Your task to perform on an android device: Search for sushi restaurants on Maps Image 0: 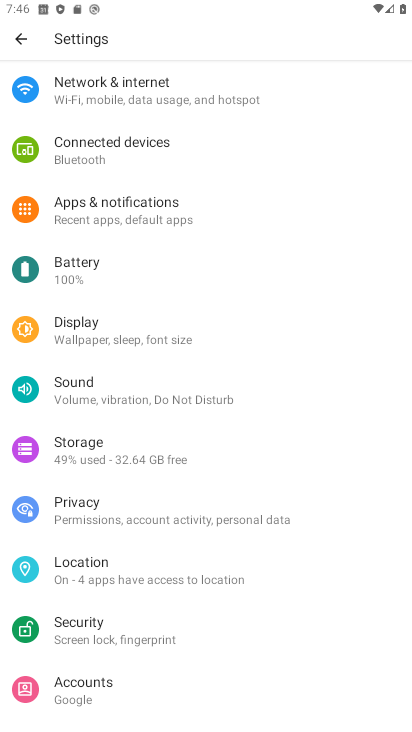
Step 0: press home button
Your task to perform on an android device: Search for sushi restaurants on Maps Image 1: 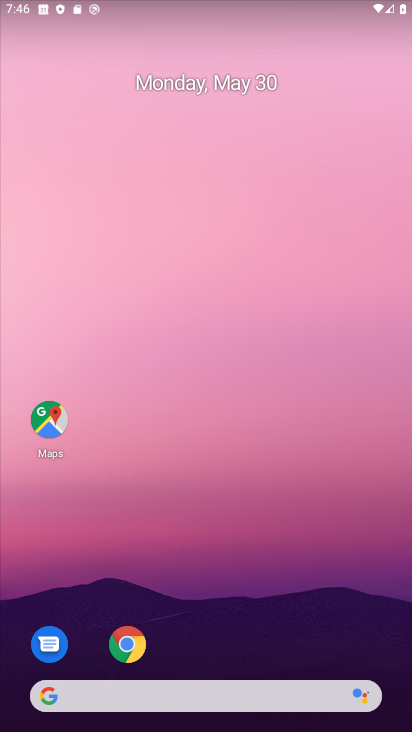
Step 1: click (48, 420)
Your task to perform on an android device: Search for sushi restaurants on Maps Image 2: 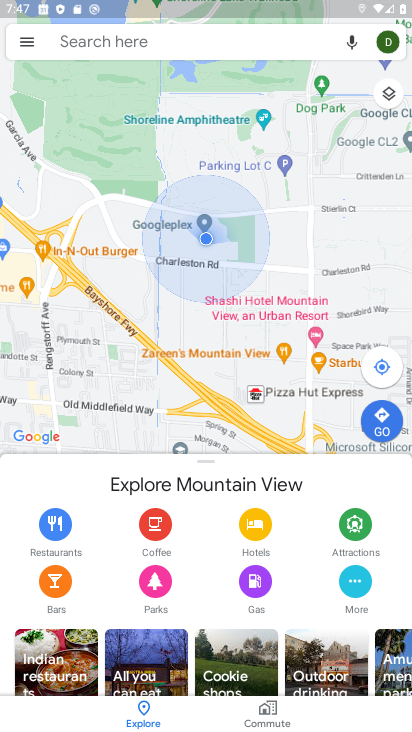
Step 2: click (149, 46)
Your task to perform on an android device: Search for sushi restaurants on Maps Image 3: 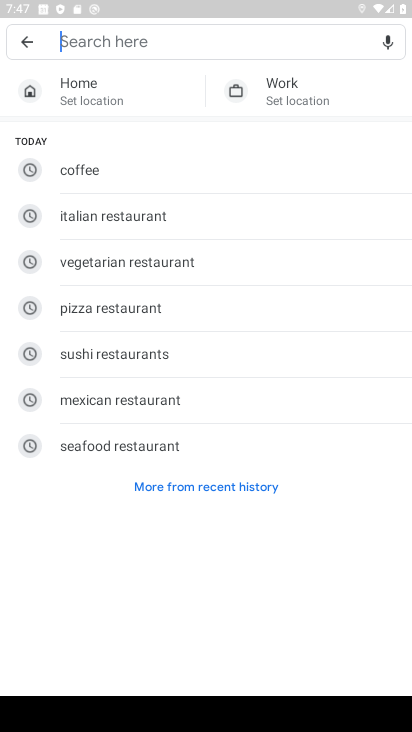
Step 3: type "sushi restaurants"
Your task to perform on an android device: Search for sushi restaurants on Maps Image 4: 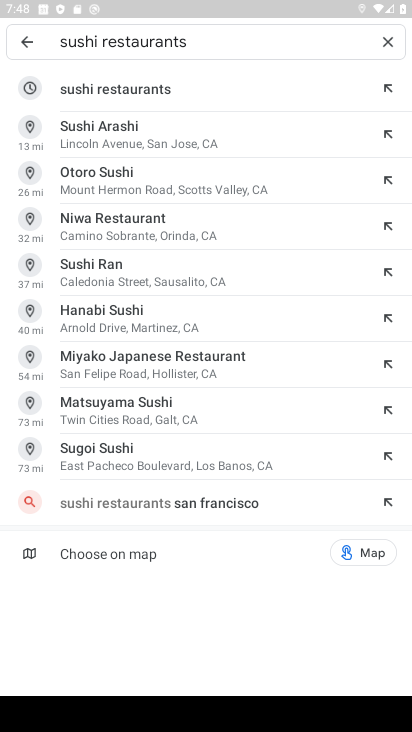
Step 4: click (81, 90)
Your task to perform on an android device: Search for sushi restaurants on Maps Image 5: 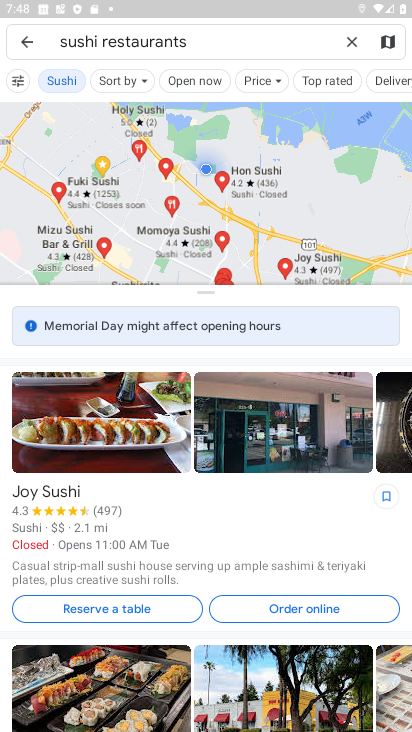
Step 5: task complete